Your task to perform on an android device: refresh tabs in the chrome app Image 0: 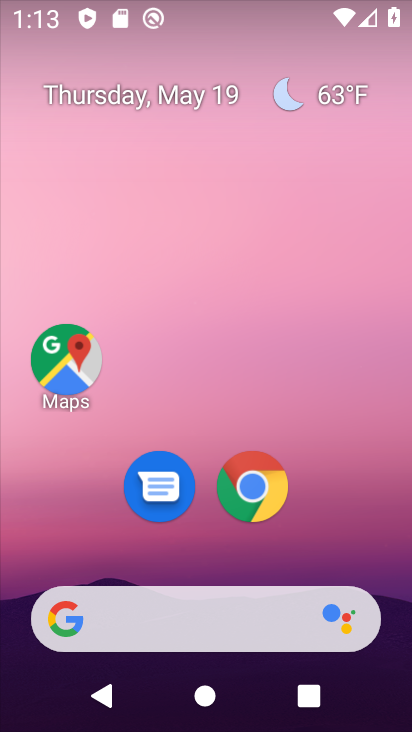
Step 0: click (262, 476)
Your task to perform on an android device: refresh tabs in the chrome app Image 1: 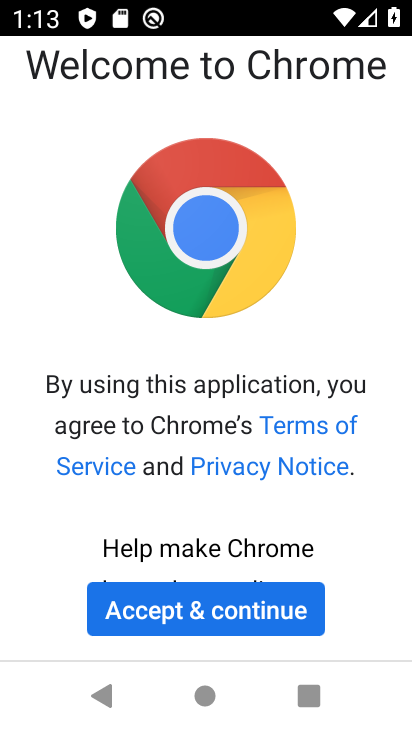
Step 1: click (259, 590)
Your task to perform on an android device: refresh tabs in the chrome app Image 2: 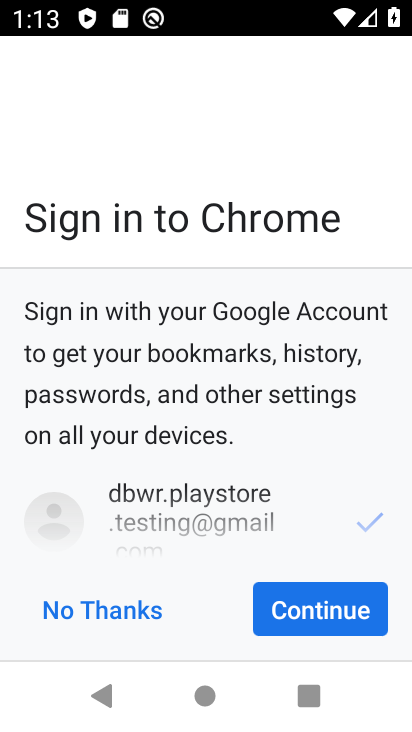
Step 2: click (302, 608)
Your task to perform on an android device: refresh tabs in the chrome app Image 3: 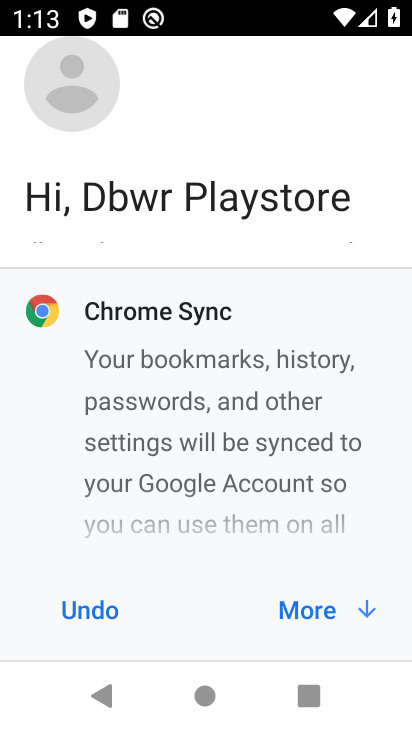
Step 3: click (311, 600)
Your task to perform on an android device: refresh tabs in the chrome app Image 4: 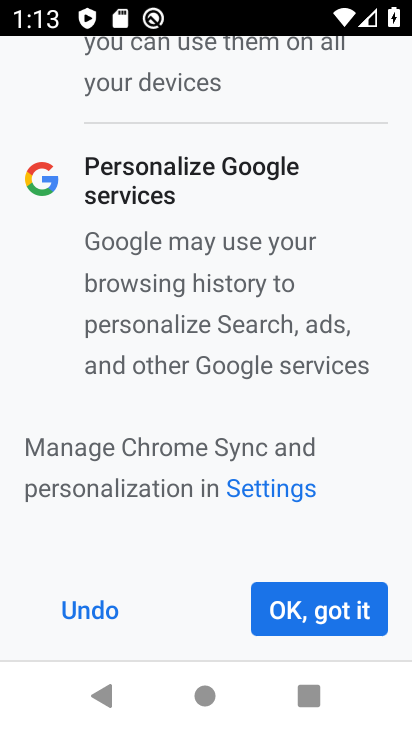
Step 4: click (293, 601)
Your task to perform on an android device: refresh tabs in the chrome app Image 5: 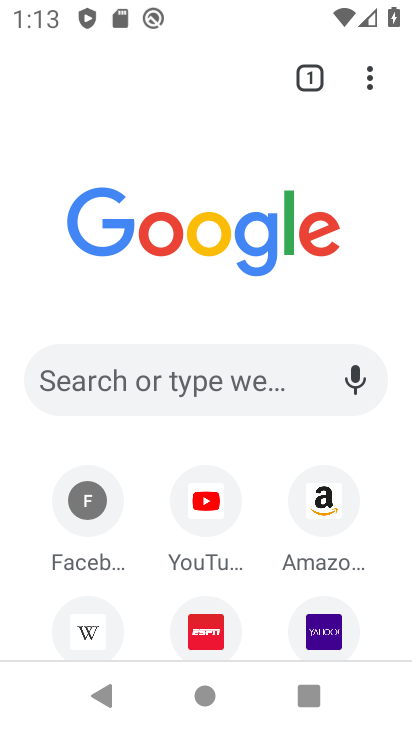
Step 5: click (365, 79)
Your task to perform on an android device: refresh tabs in the chrome app Image 6: 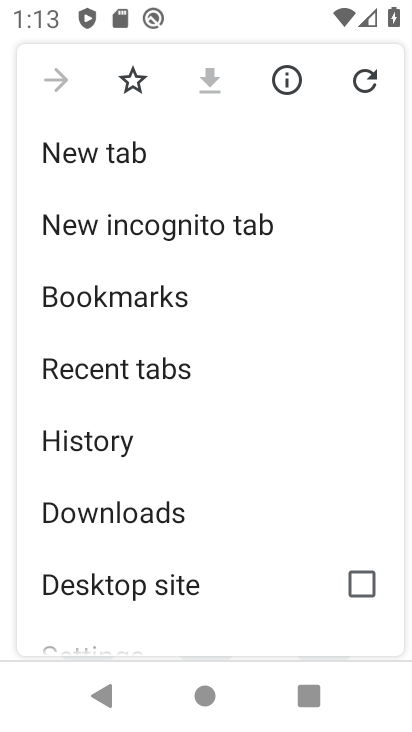
Step 6: click (361, 82)
Your task to perform on an android device: refresh tabs in the chrome app Image 7: 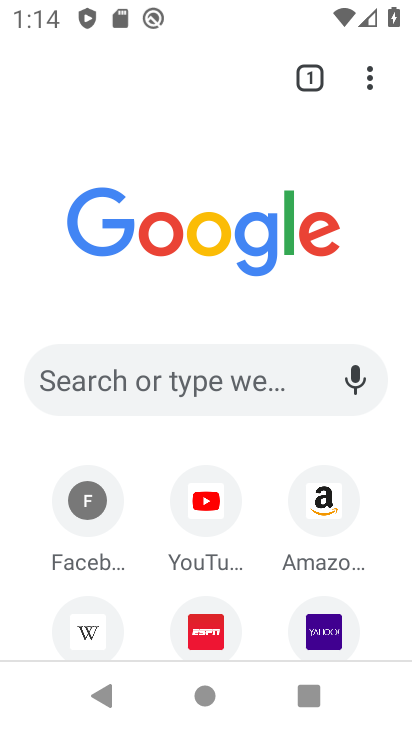
Step 7: task complete